Your task to perform on an android device: Open sound settings Image 0: 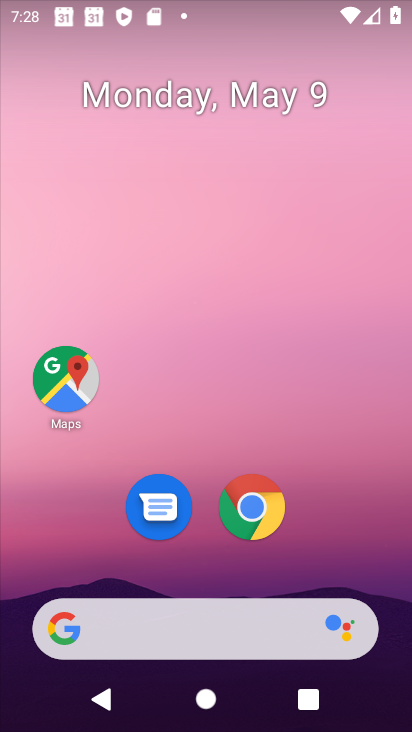
Step 0: drag from (304, 659) to (316, 216)
Your task to perform on an android device: Open sound settings Image 1: 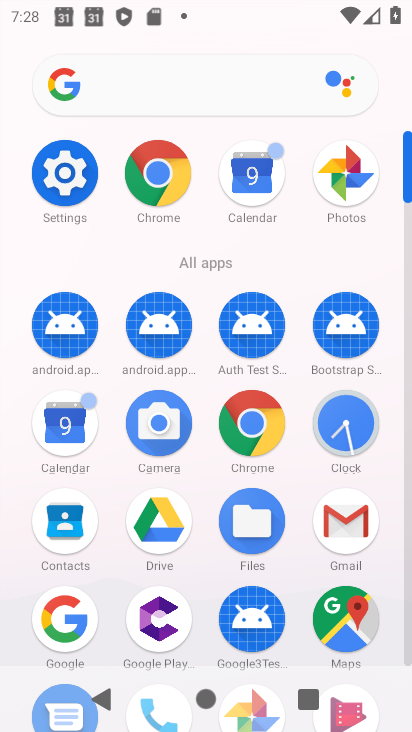
Step 1: click (67, 179)
Your task to perform on an android device: Open sound settings Image 2: 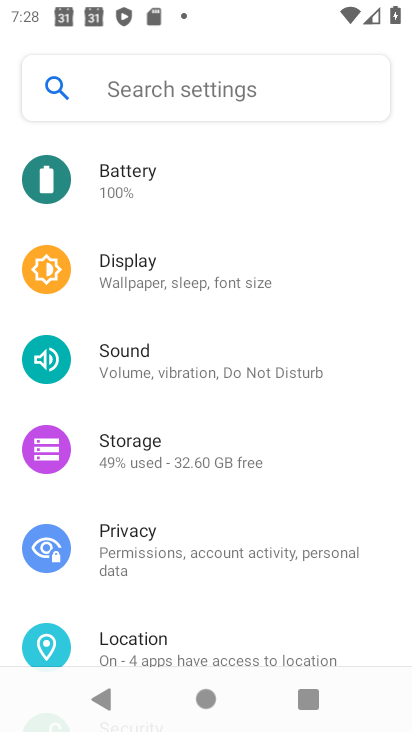
Step 2: click (181, 91)
Your task to perform on an android device: Open sound settings Image 3: 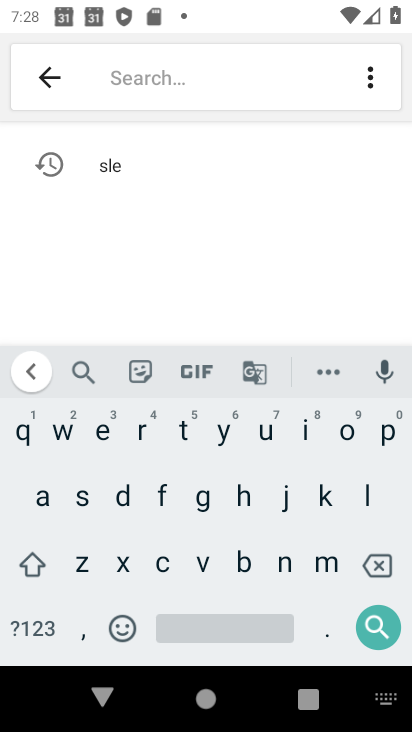
Step 3: click (83, 496)
Your task to perform on an android device: Open sound settings Image 4: 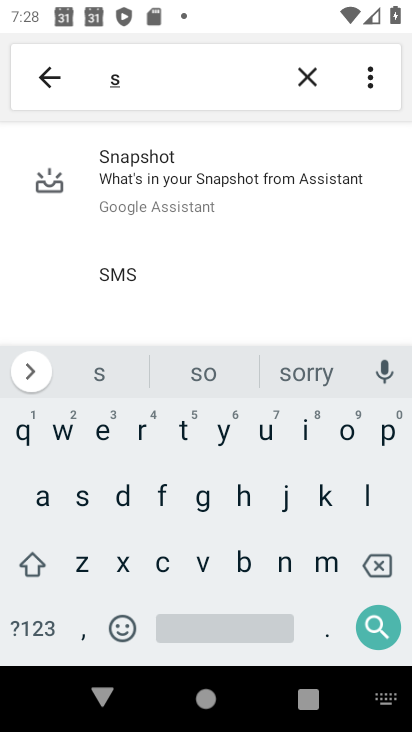
Step 4: click (342, 436)
Your task to perform on an android device: Open sound settings Image 5: 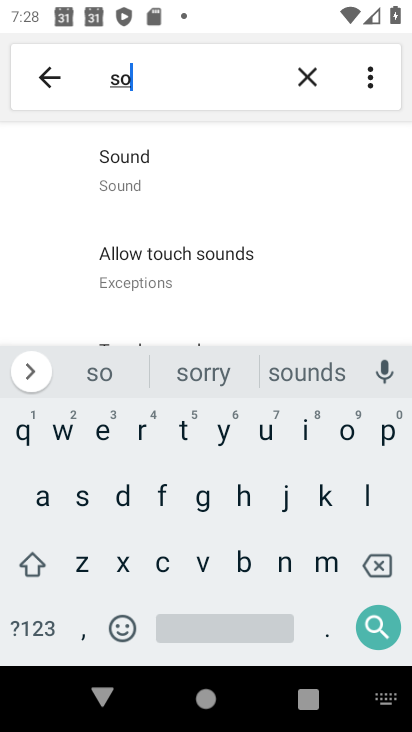
Step 5: click (124, 183)
Your task to perform on an android device: Open sound settings Image 6: 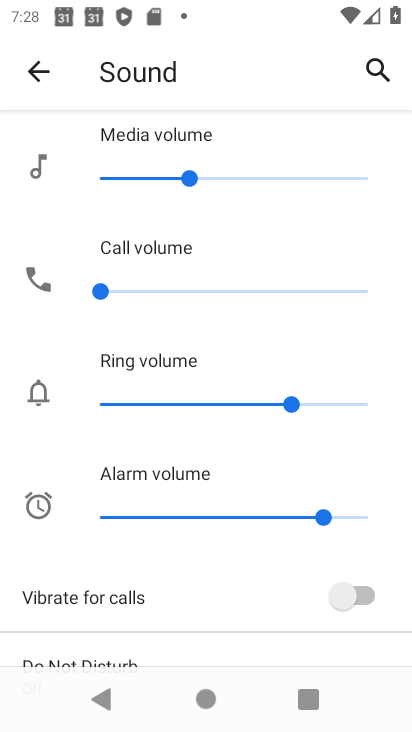
Step 6: task complete